Your task to perform on an android device: Show me recent news Image 0: 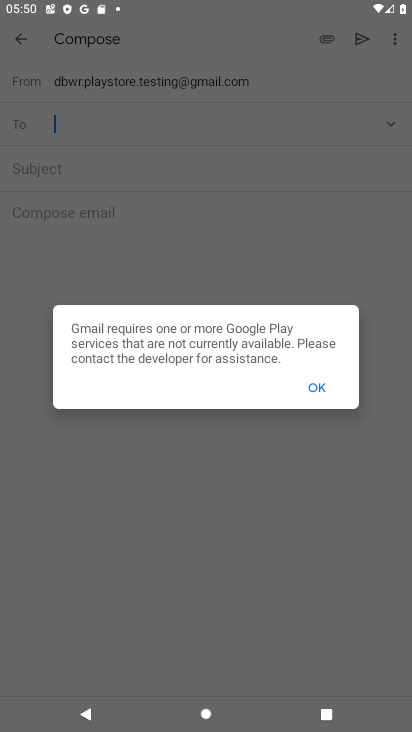
Step 0: click (320, 387)
Your task to perform on an android device: Show me recent news Image 1: 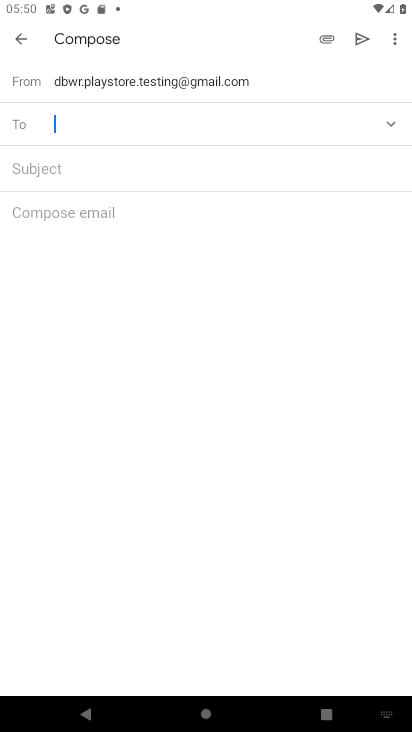
Step 1: press home button
Your task to perform on an android device: Show me recent news Image 2: 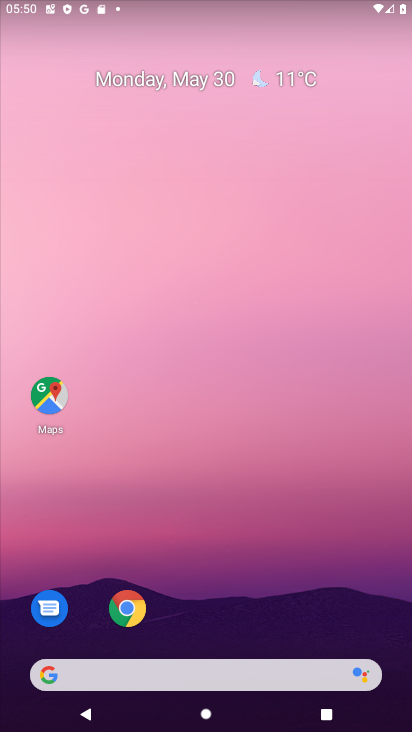
Step 2: drag from (232, 654) to (206, 282)
Your task to perform on an android device: Show me recent news Image 3: 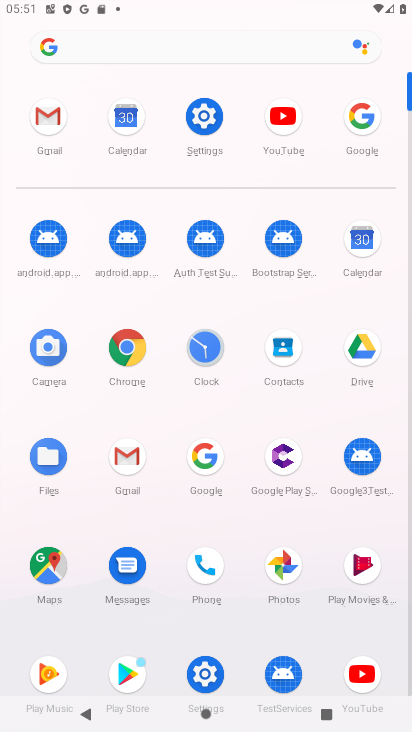
Step 3: click (210, 447)
Your task to perform on an android device: Show me recent news Image 4: 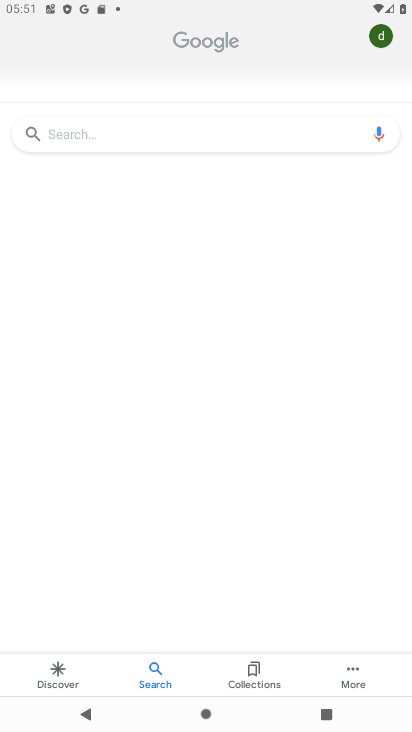
Step 4: click (182, 136)
Your task to perform on an android device: Show me recent news Image 5: 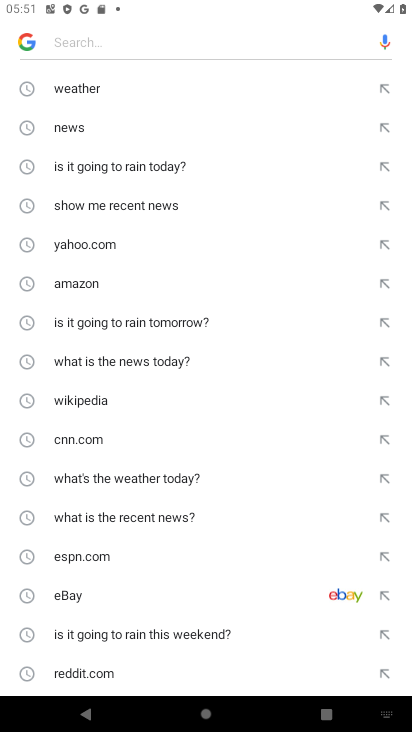
Step 5: click (92, 199)
Your task to perform on an android device: Show me recent news Image 6: 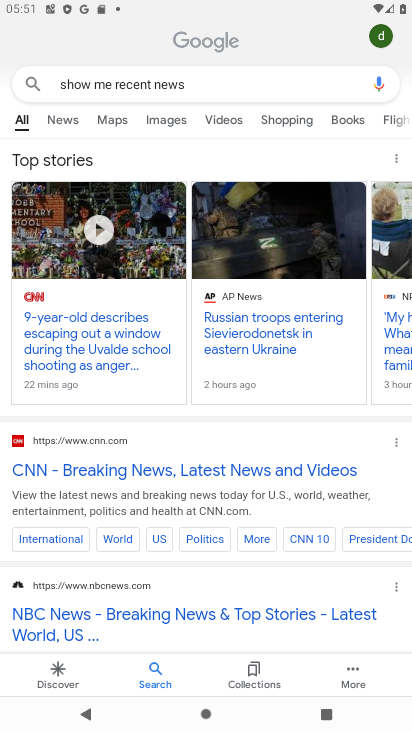
Step 6: task complete